Your task to perform on an android device: read, delete, or share a saved page in the chrome app Image 0: 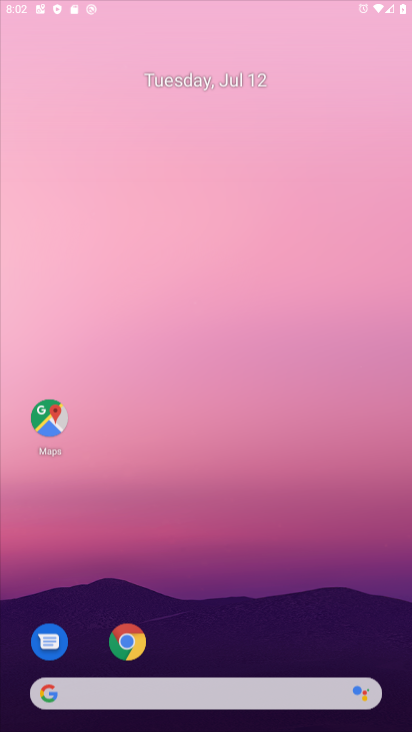
Step 0: press home button
Your task to perform on an android device: read, delete, or share a saved page in the chrome app Image 1: 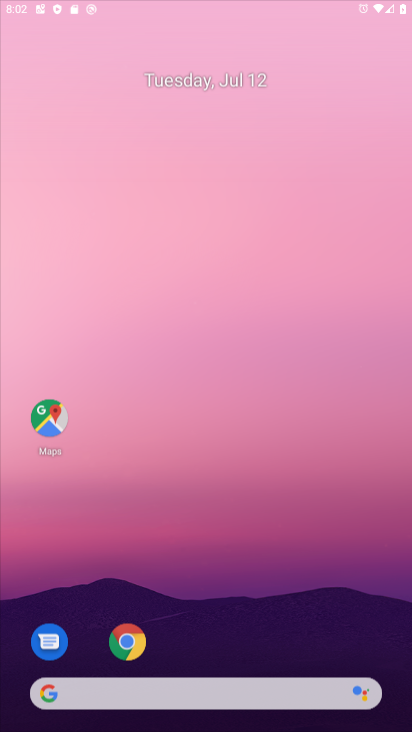
Step 1: click (224, 375)
Your task to perform on an android device: read, delete, or share a saved page in the chrome app Image 2: 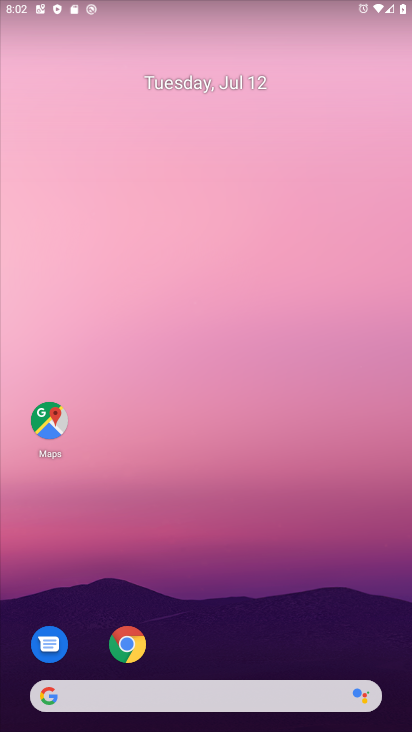
Step 2: drag from (166, 688) to (293, 232)
Your task to perform on an android device: read, delete, or share a saved page in the chrome app Image 3: 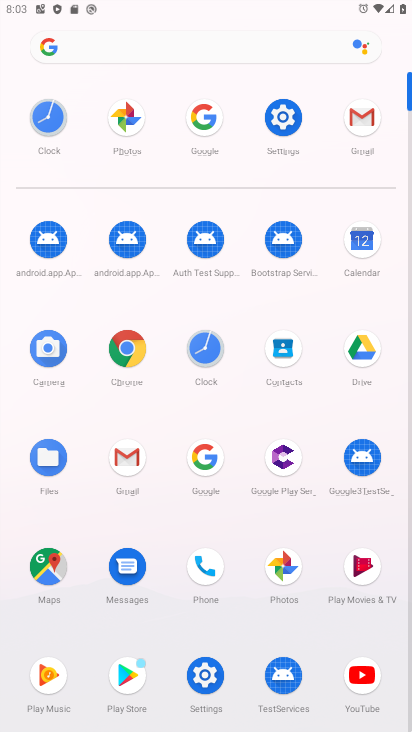
Step 3: click (117, 357)
Your task to perform on an android device: read, delete, or share a saved page in the chrome app Image 4: 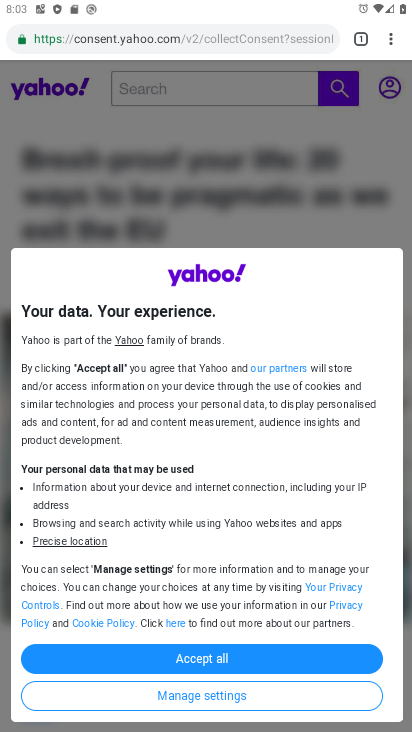
Step 4: click (392, 34)
Your task to perform on an android device: read, delete, or share a saved page in the chrome app Image 5: 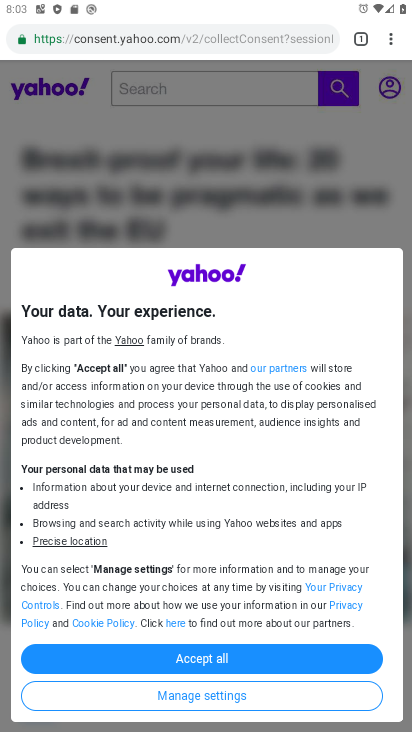
Step 5: click (394, 40)
Your task to perform on an android device: read, delete, or share a saved page in the chrome app Image 6: 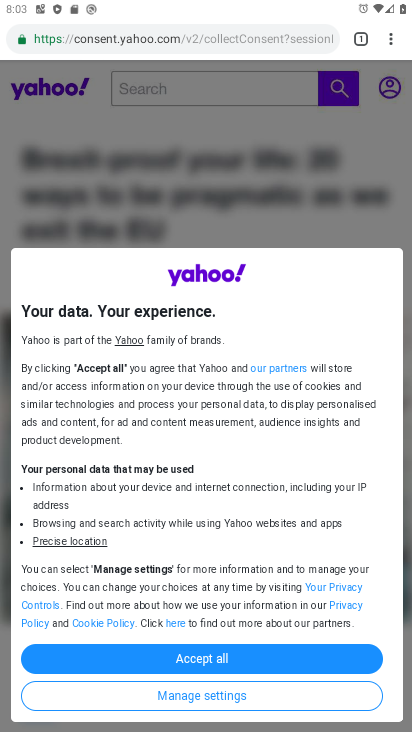
Step 6: click (394, 40)
Your task to perform on an android device: read, delete, or share a saved page in the chrome app Image 7: 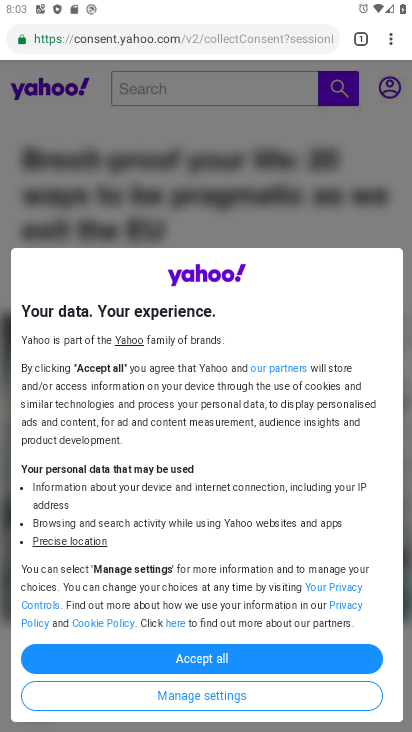
Step 7: click (394, 31)
Your task to perform on an android device: read, delete, or share a saved page in the chrome app Image 8: 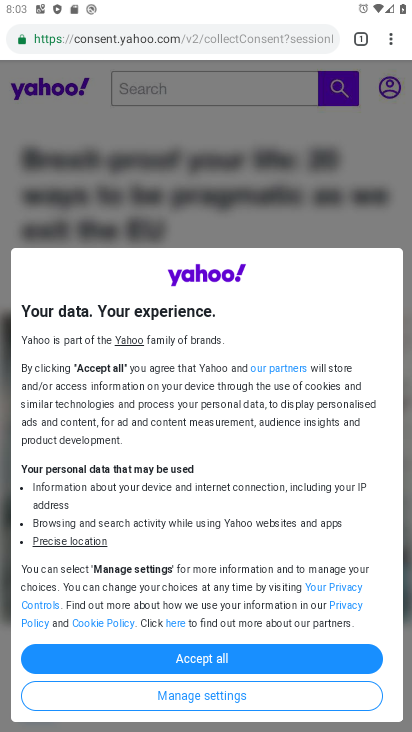
Step 8: click (388, 43)
Your task to perform on an android device: read, delete, or share a saved page in the chrome app Image 9: 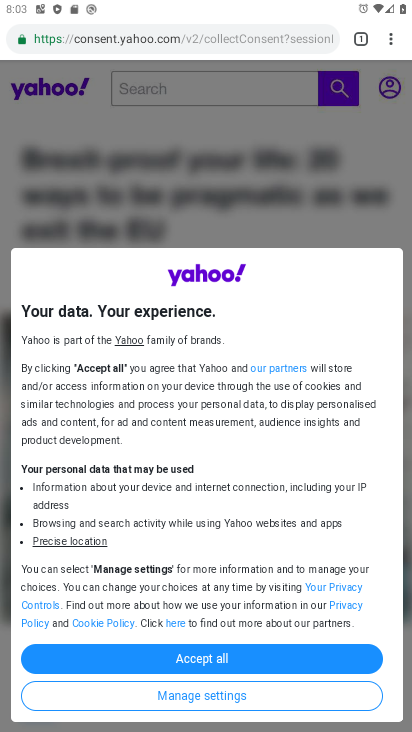
Step 9: click (388, 43)
Your task to perform on an android device: read, delete, or share a saved page in the chrome app Image 10: 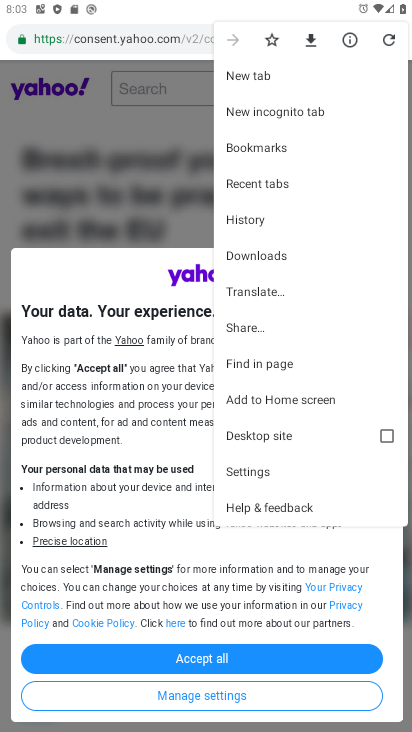
Step 10: click (256, 258)
Your task to perform on an android device: read, delete, or share a saved page in the chrome app Image 11: 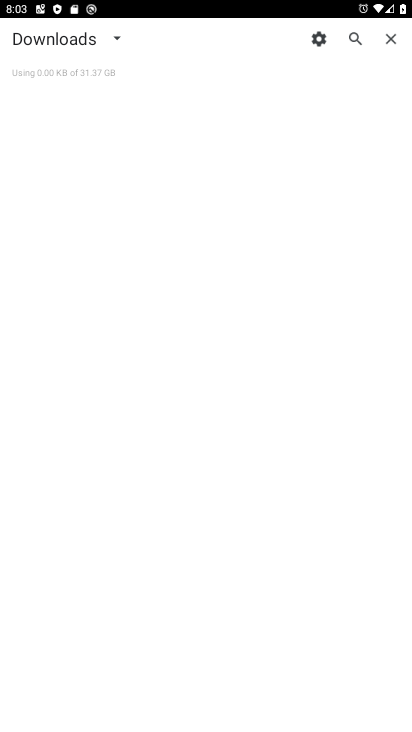
Step 11: click (122, 38)
Your task to perform on an android device: read, delete, or share a saved page in the chrome app Image 12: 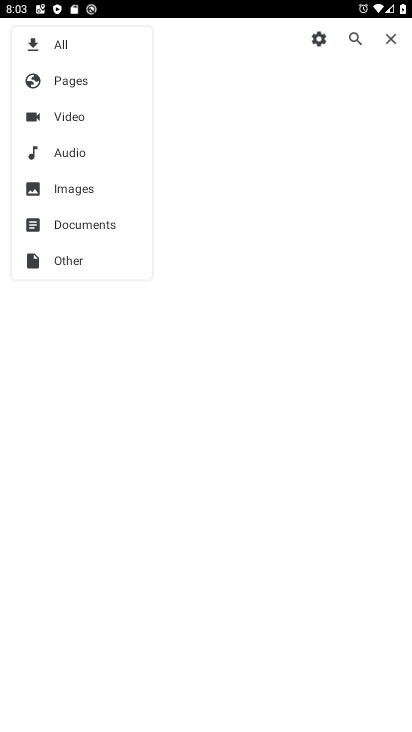
Step 12: click (73, 86)
Your task to perform on an android device: read, delete, or share a saved page in the chrome app Image 13: 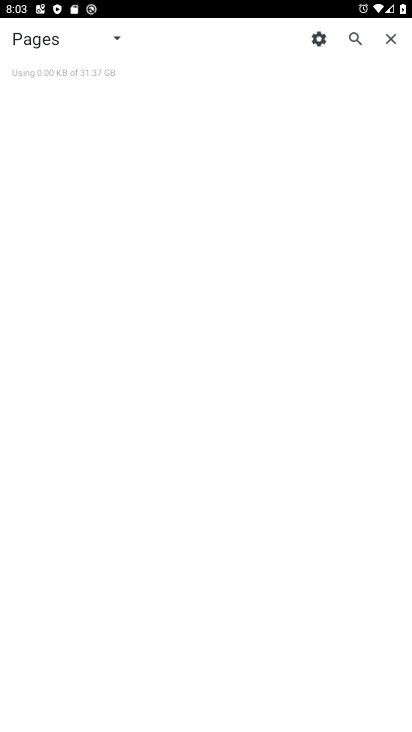
Step 13: click (114, 35)
Your task to perform on an android device: read, delete, or share a saved page in the chrome app Image 14: 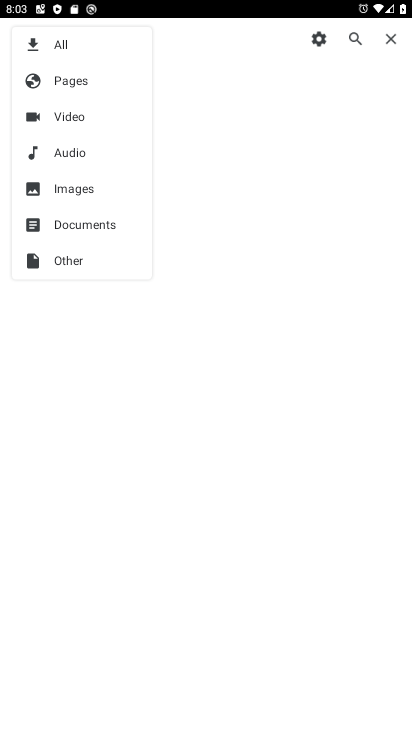
Step 14: click (69, 82)
Your task to perform on an android device: read, delete, or share a saved page in the chrome app Image 15: 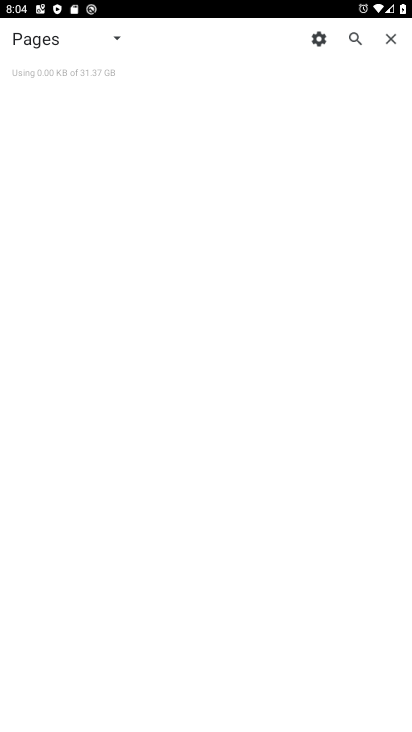
Step 15: task complete